Your task to perform on an android device: set default search engine in the chrome app Image 0: 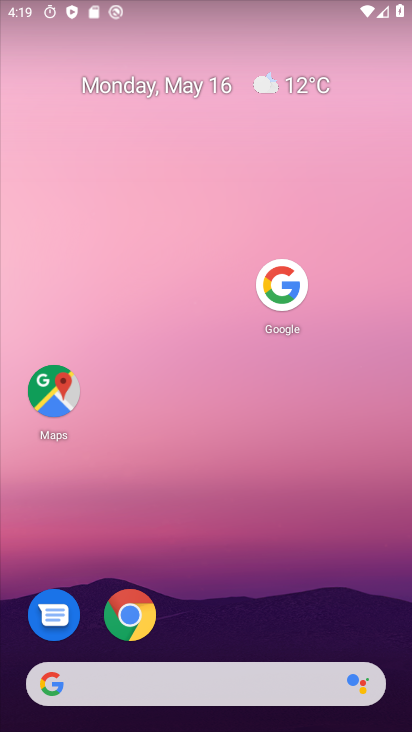
Step 0: drag from (196, 659) to (114, 12)
Your task to perform on an android device: set default search engine in the chrome app Image 1: 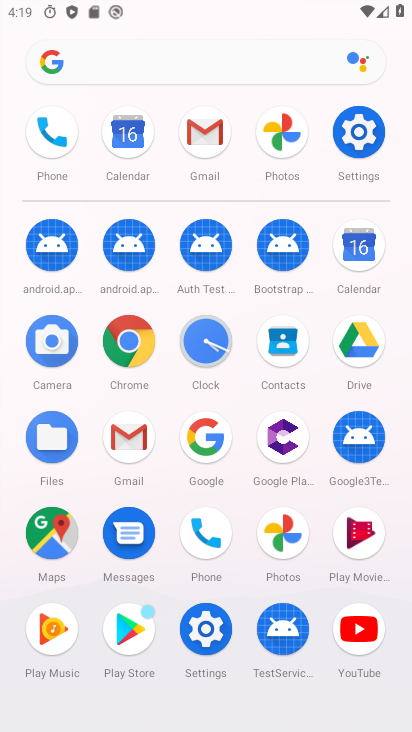
Step 1: click (139, 342)
Your task to perform on an android device: set default search engine in the chrome app Image 2: 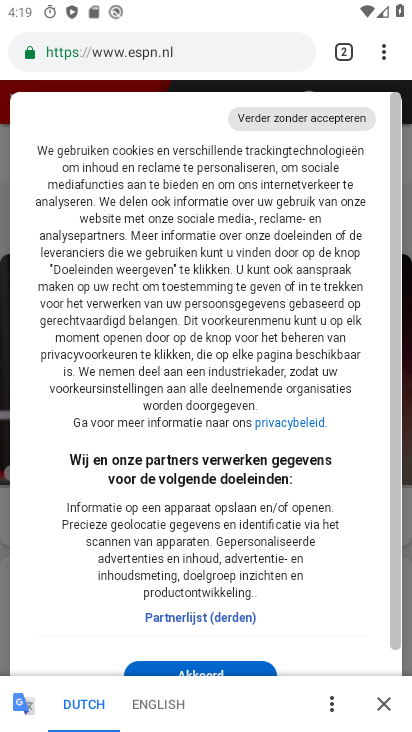
Step 2: click (388, 59)
Your task to perform on an android device: set default search engine in the chrome app Image 3: 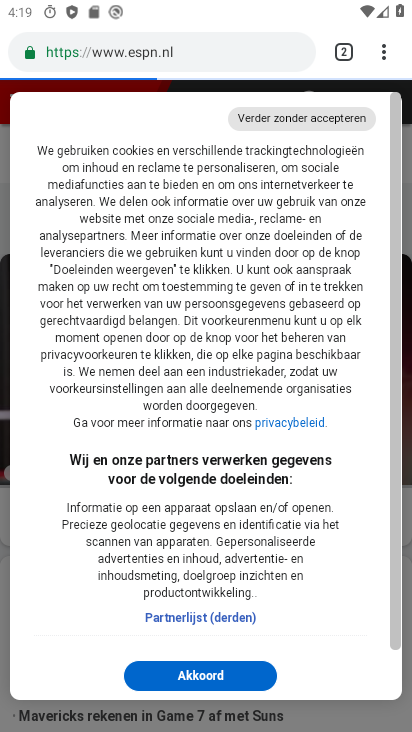
Step 3: drag from (380, 47) to (190, 625)
Your task to perform on an android device: set default search engine in the chrome app Image 4: 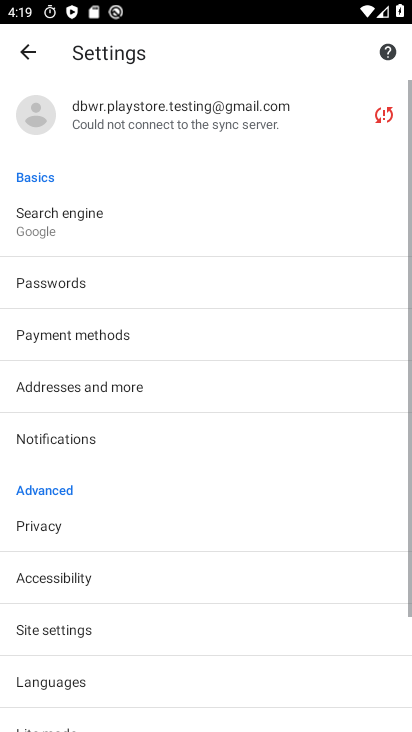
Step 4: drag from (207, 628) to (191, 444)
Your task to perform on an android device: set default search engine in the chrome app Image 5: 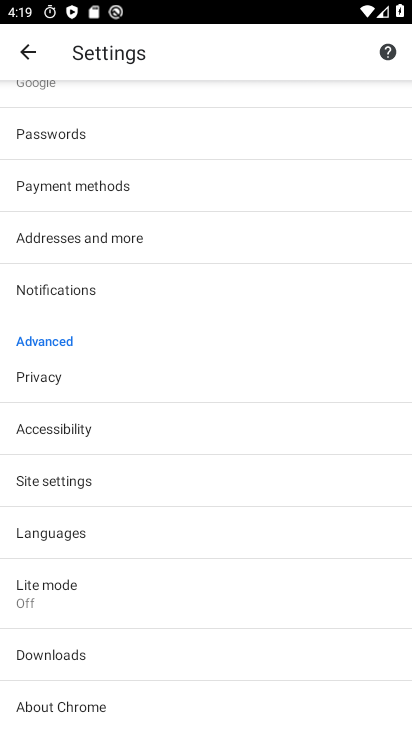
Step 5: drag from (71, 199) to (117, 537)
Your task to perform on an android device: set default search engine in the chrome app Image 6: 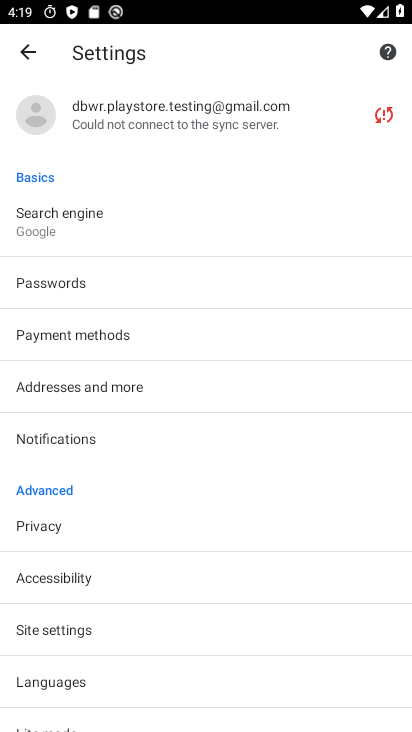
Step 6: click (61, 220)
Your task to perform on an android device: set default search engine in the chrome app Image 7: 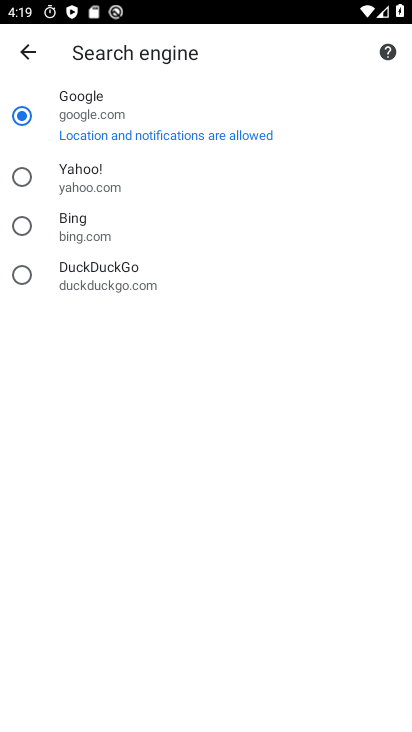
Step 7: task complete